Your task to perform on an android device: Open eBay Image 0: 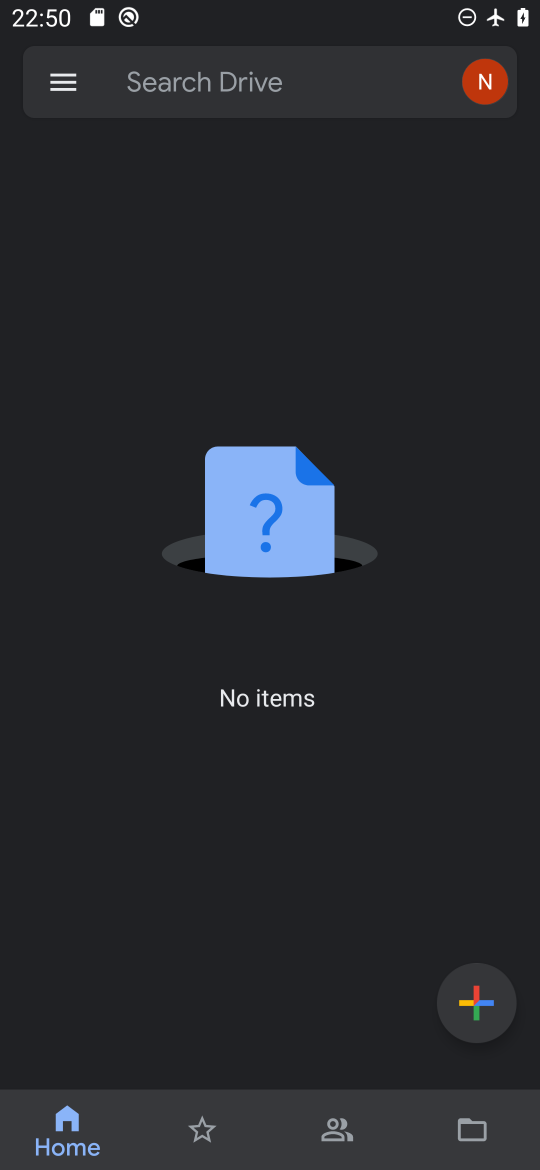
Step 0: press home button
Your task to perform on an android device: Open eBay Image 1: 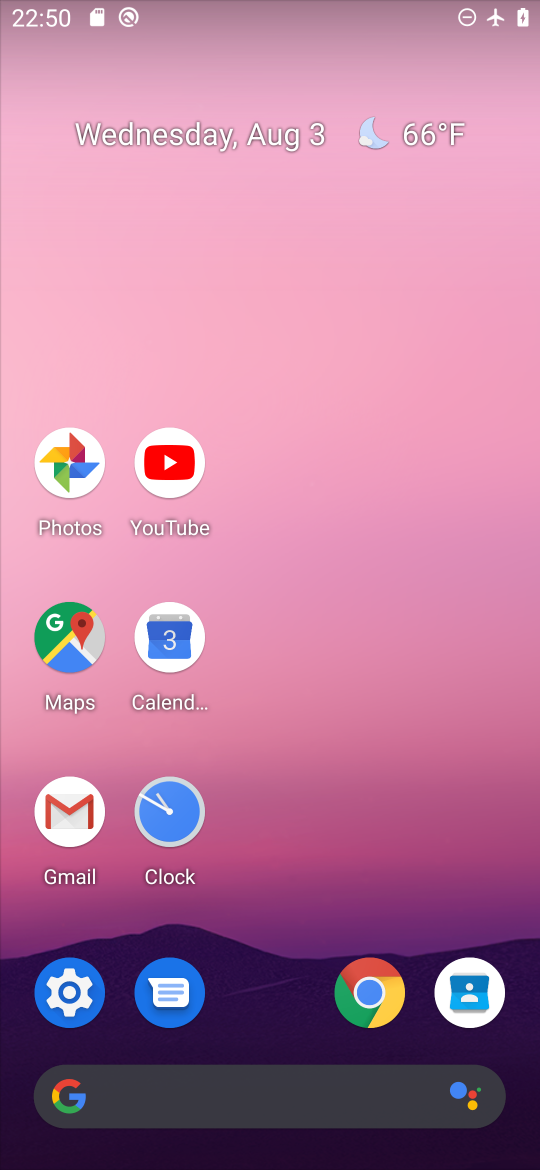
Step 1: click (376, 991)
Your task to perform on an android device: Open eBay Image 2: 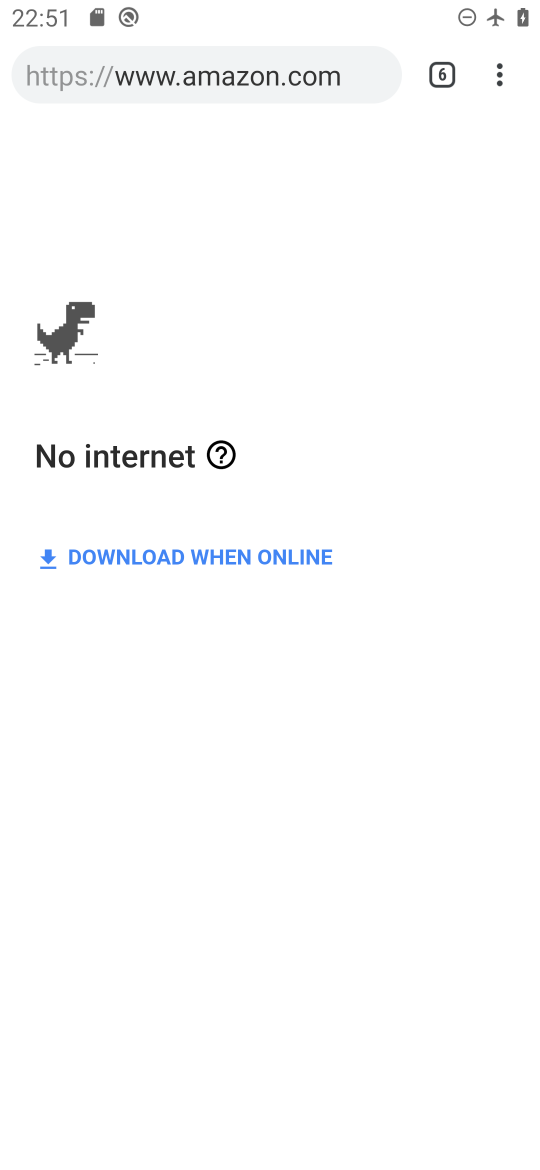
Step 2: click (499, 64)
Your task to perform on an android device: Open eBay Image 3: 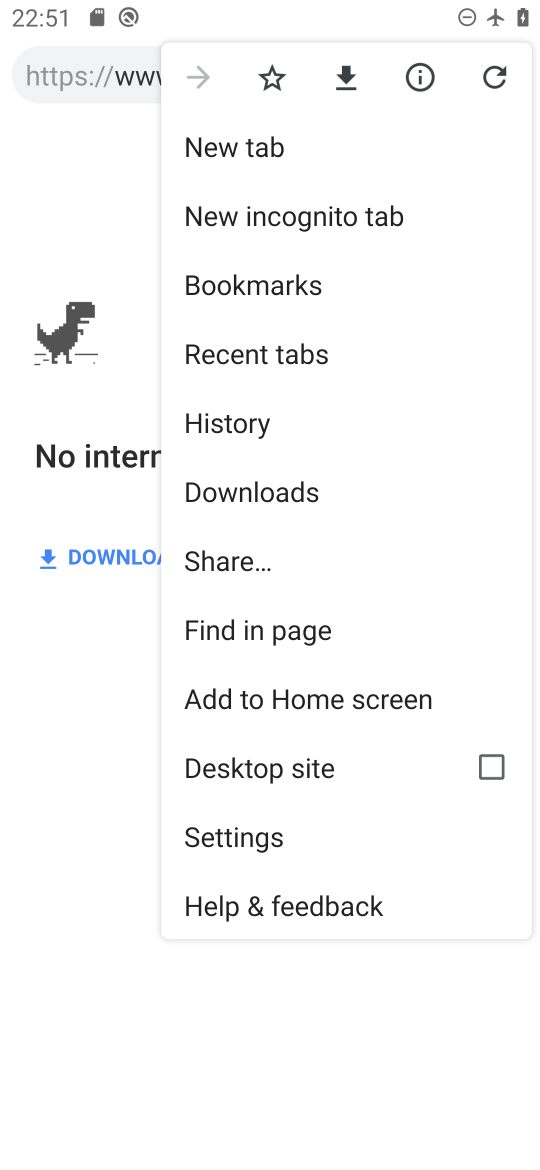
Step 3: click (248, 136)
Your task to perform on an android device: Open eBay Image 4: 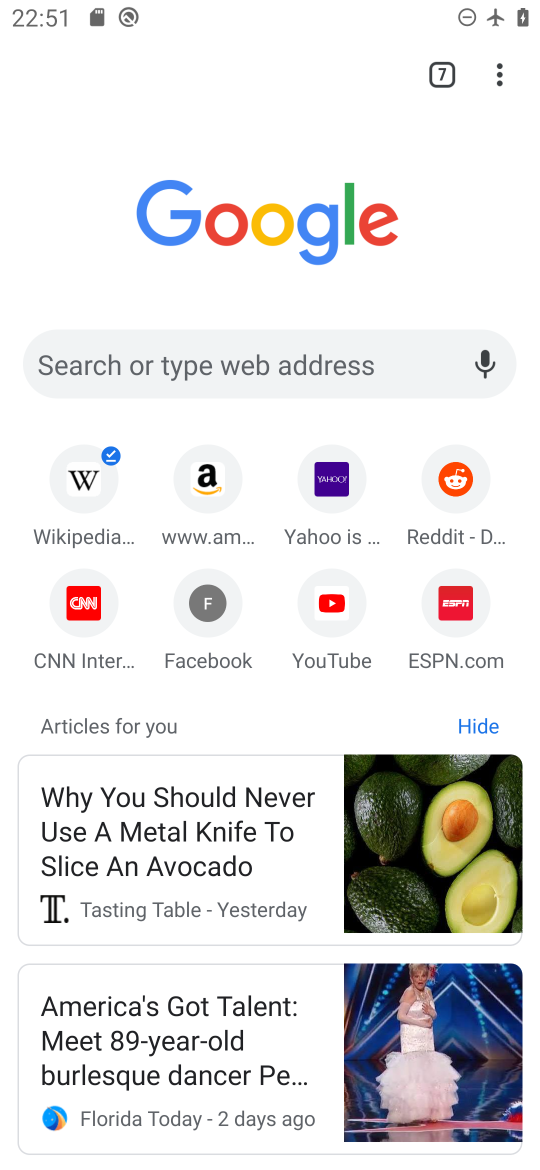
Step 4: click (174, 360)
Your task to perform on an android device: Open eBay Image 5: 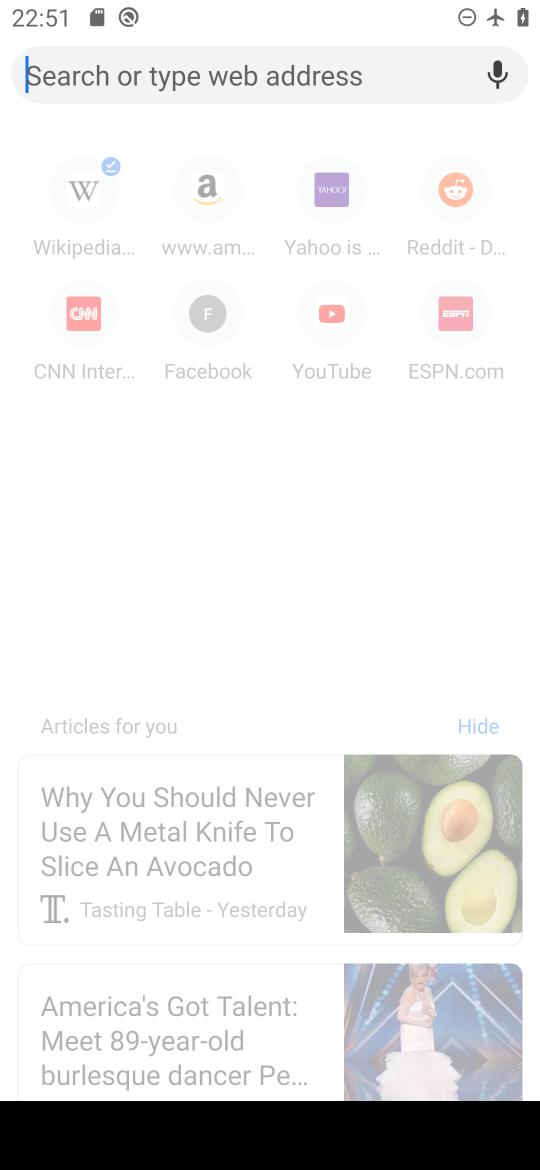
Step 5: type "ebay"
Your task to perform on an android device: Open eBay Image 6: 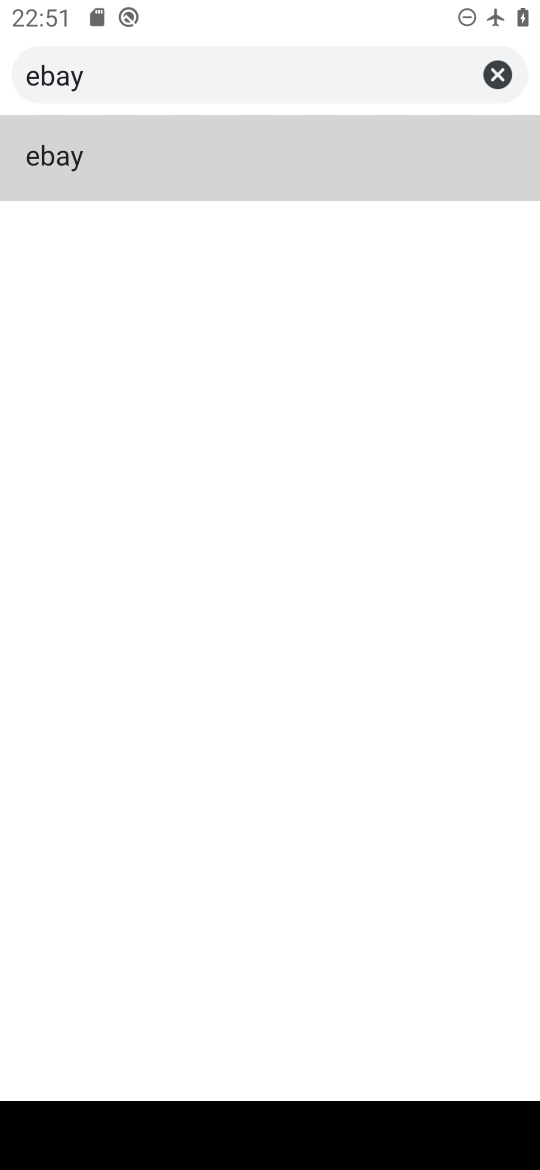
Step 6: click (68, 151)
Your task to perform on an android device: Open eBay Image 7: 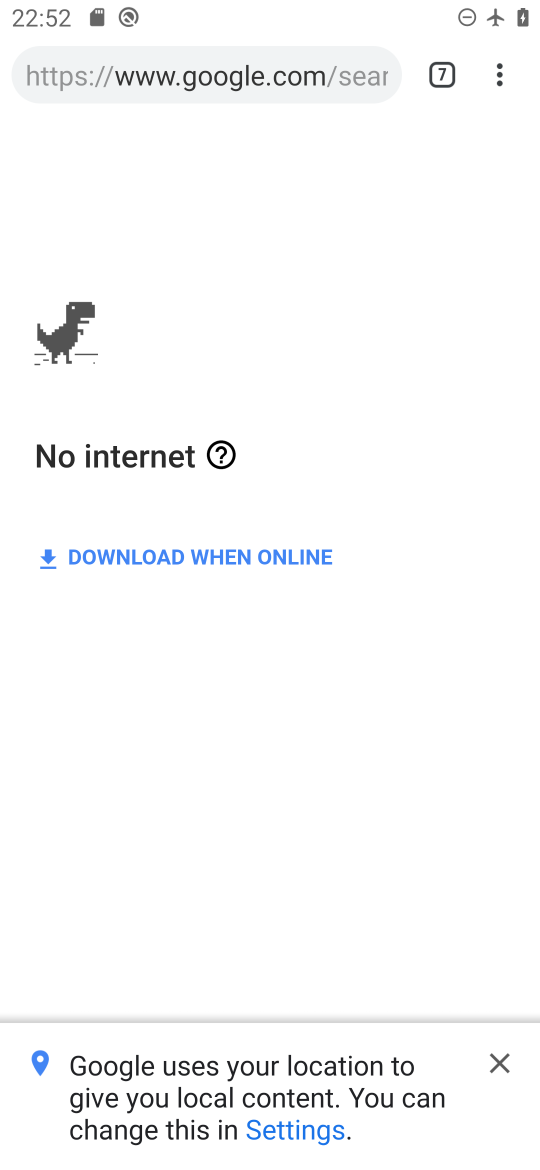
Step 7: click (506, 59)
Your task to perform on an android device: Open eBay Image 8: 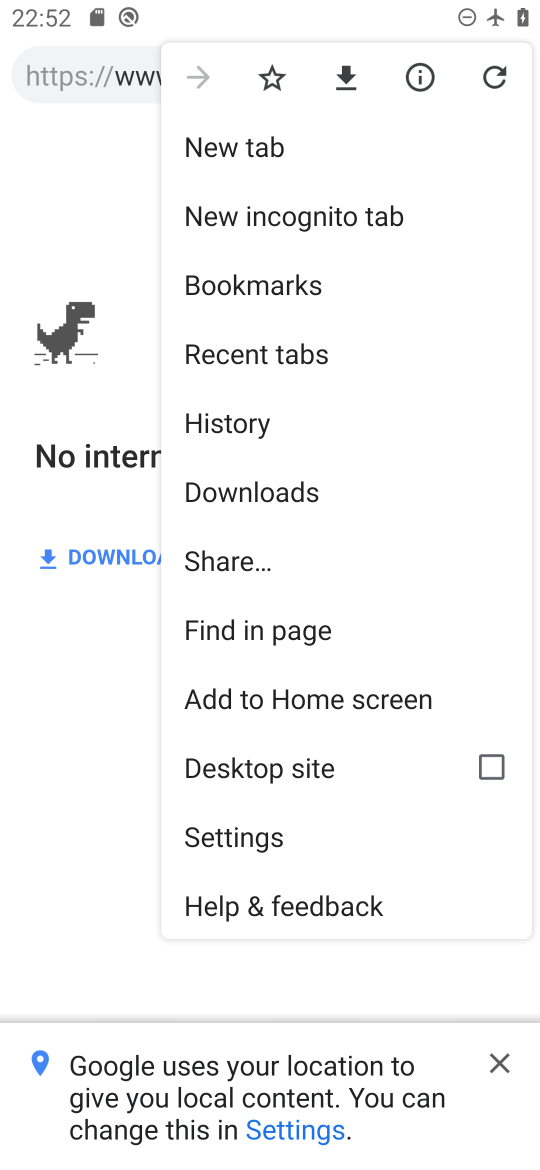
Step 8: click (120, 191)
Your task to perform on an android device: Open eBay Image 9: 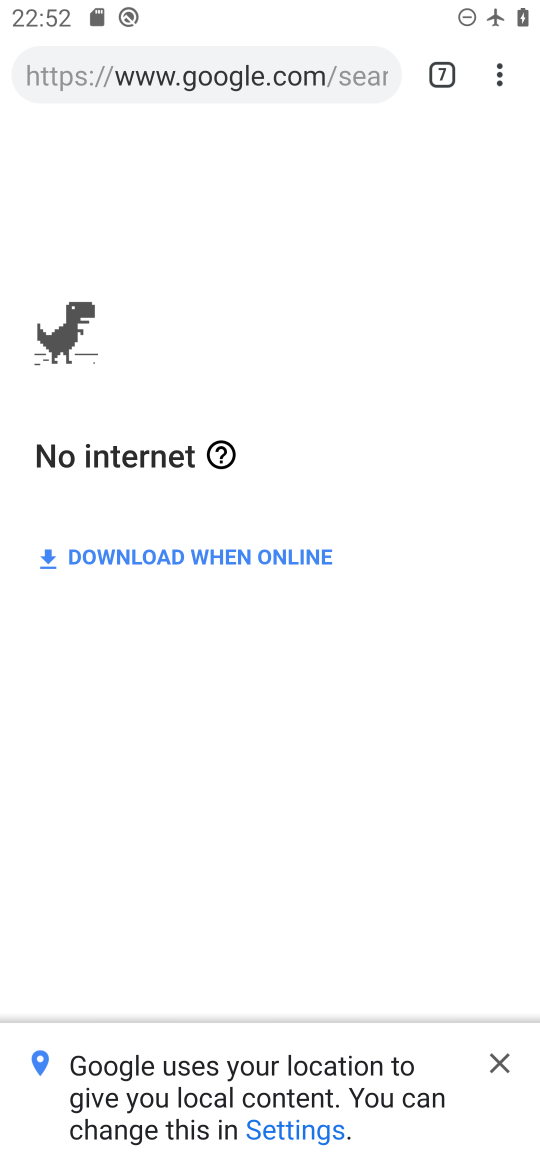
Step 9: task complete